Your task to perform on an android device: turn on sleep mode Image 0: 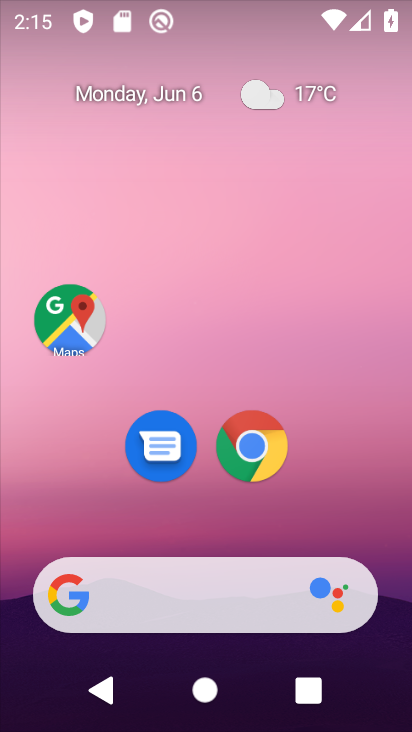
Step 0: drag from (205, 513) to (271, 30)
Your task to perform on an android device: turn on sleep mode Image 1: 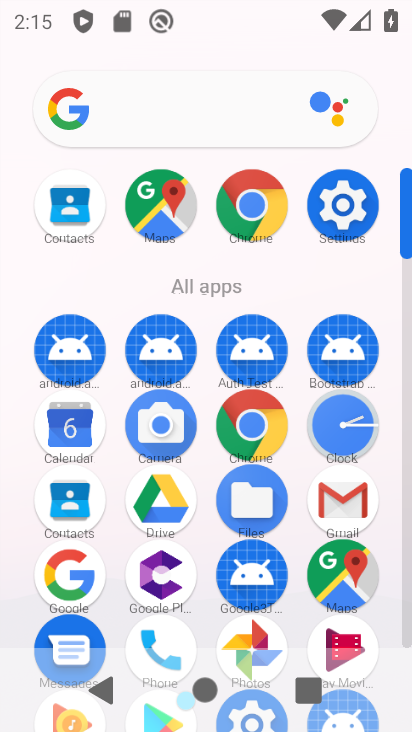
Step 1: click (340, 194)
Your task to perform on an android device: turn on sleep mode Image 2: 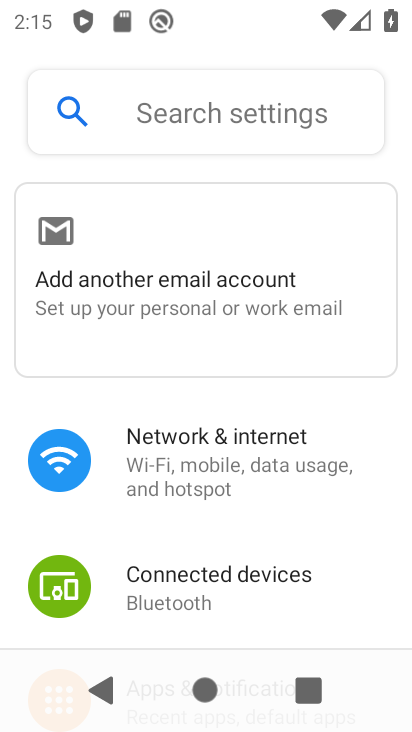
Step 2: click (142, 124)
Your task to perform on an android device: turn on sleep mode Image 3: 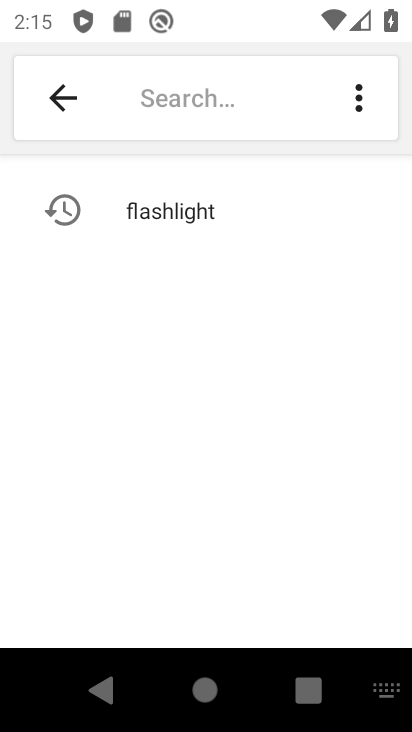
Step 3: type "sleep mode"
Your task to perform on an android device: turn on sleep mode Image 4: 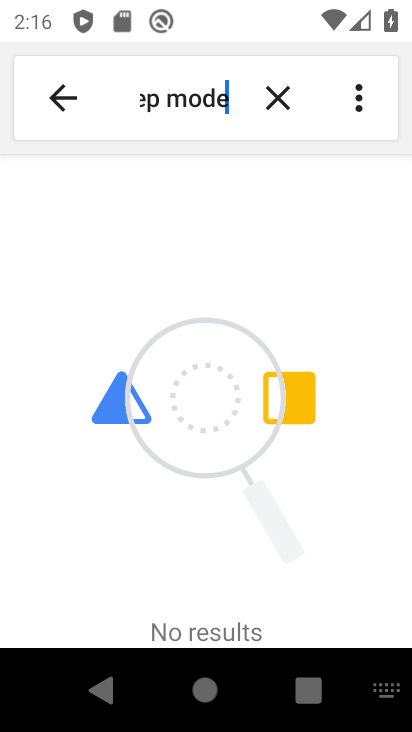
Step 4: task complete